Your task to perform on an android device: install app "WhatsApp Messenger" Image 0: 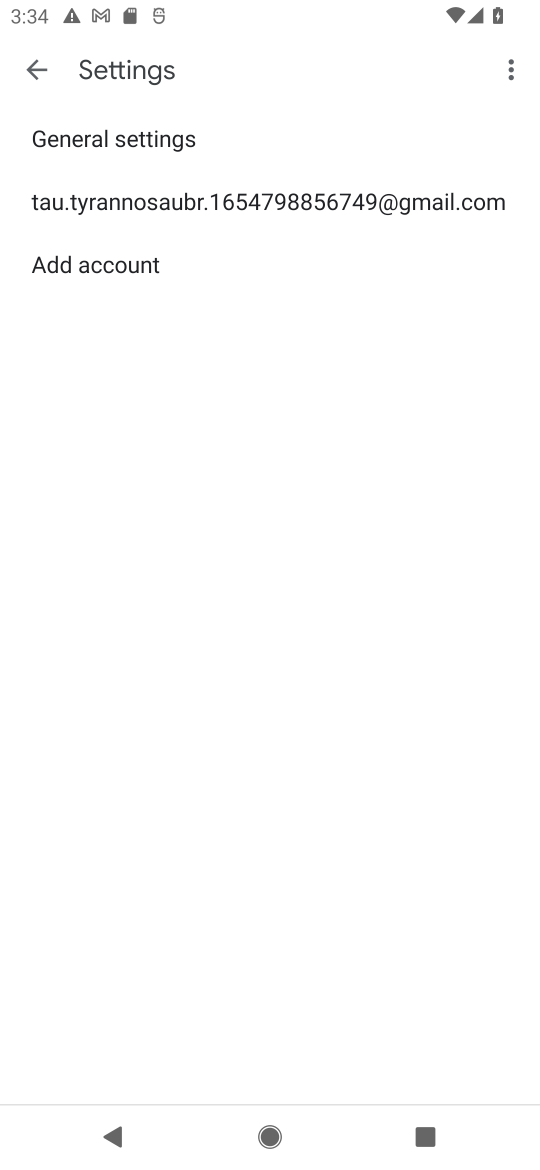
Step 0: press home button
Your task to perform on an android device: install app "WhatsApp Messenger" Image 1: 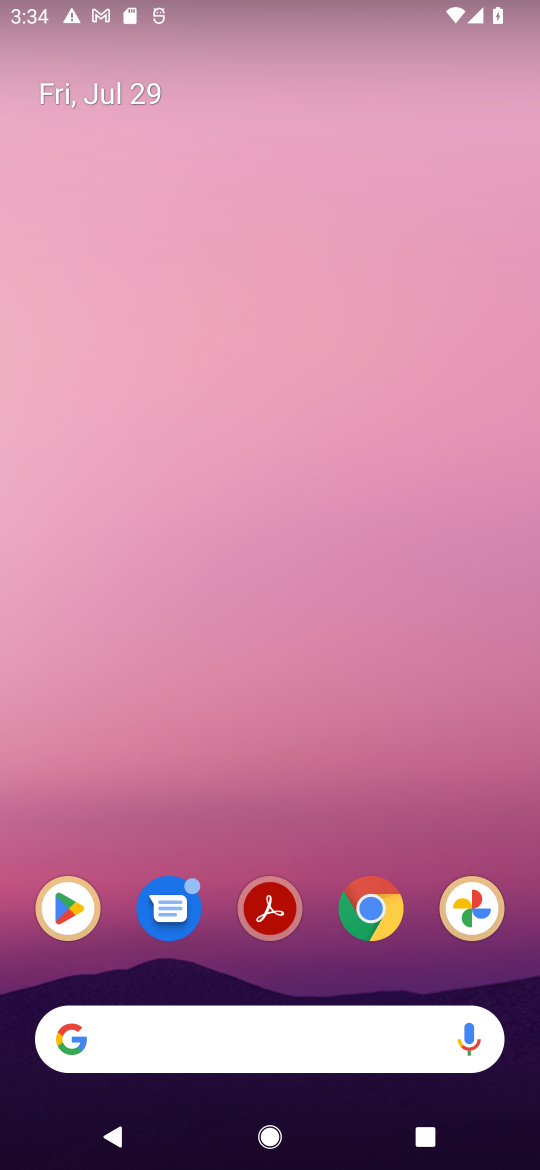
Step 1: click (53, 908)
Your task to perform on an android device: install app "WhatsApp Messenger" Image 2: 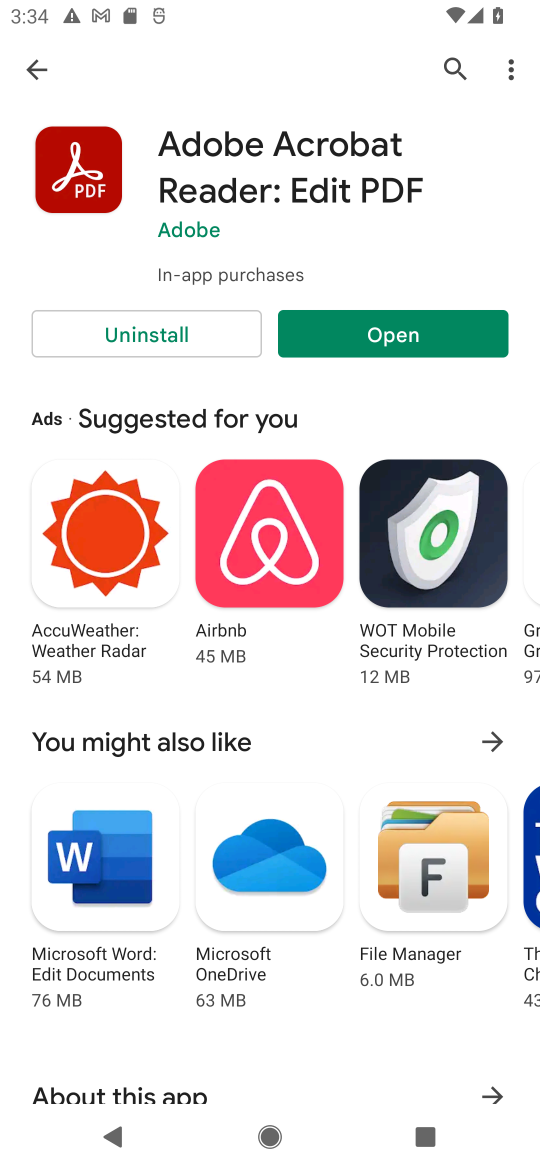
Step 2: click (455, 48)
Your task to perform on an android device: install app "WhatsApp Messenger" Image 3: 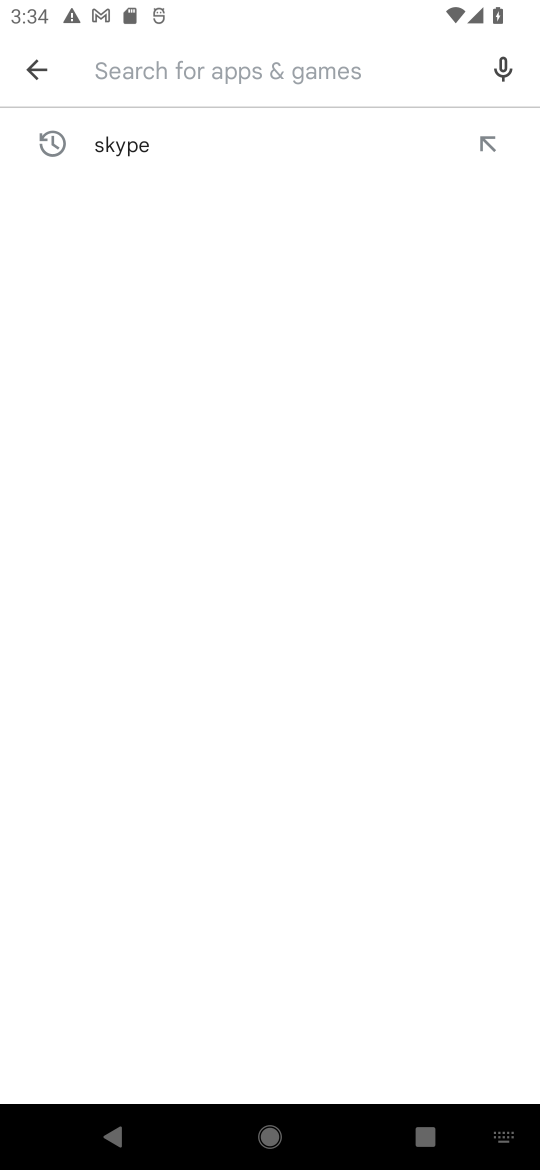
Step 3: type "whatsapp messenger"
Your task to perform on an android device: install app "WhatsApp Messenger" Image 4: 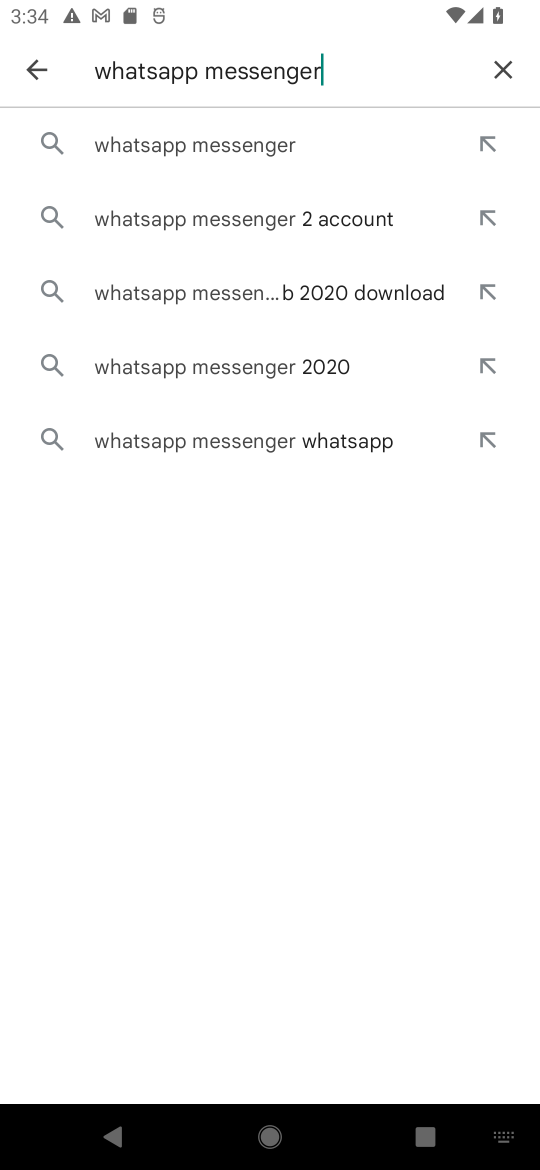
Step 4: click (112, 146)
Your task to perform on an android device: install app "WhatsApp Messenger" Image 5: 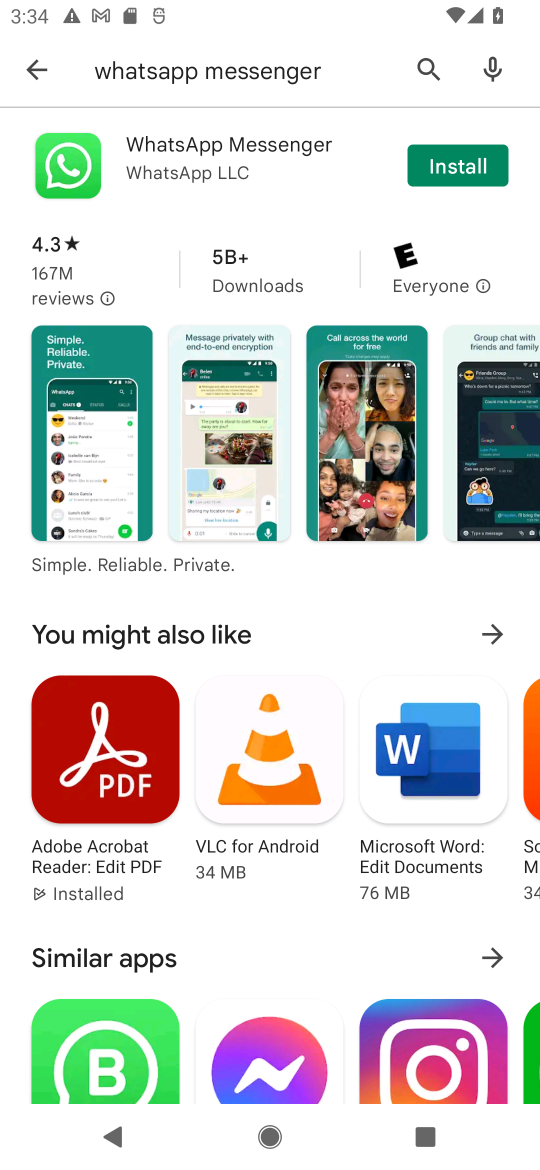
Step 5: click (478, 164)
Your task to perform on an android device: install app "WhatsApp Messenger" Image 6: 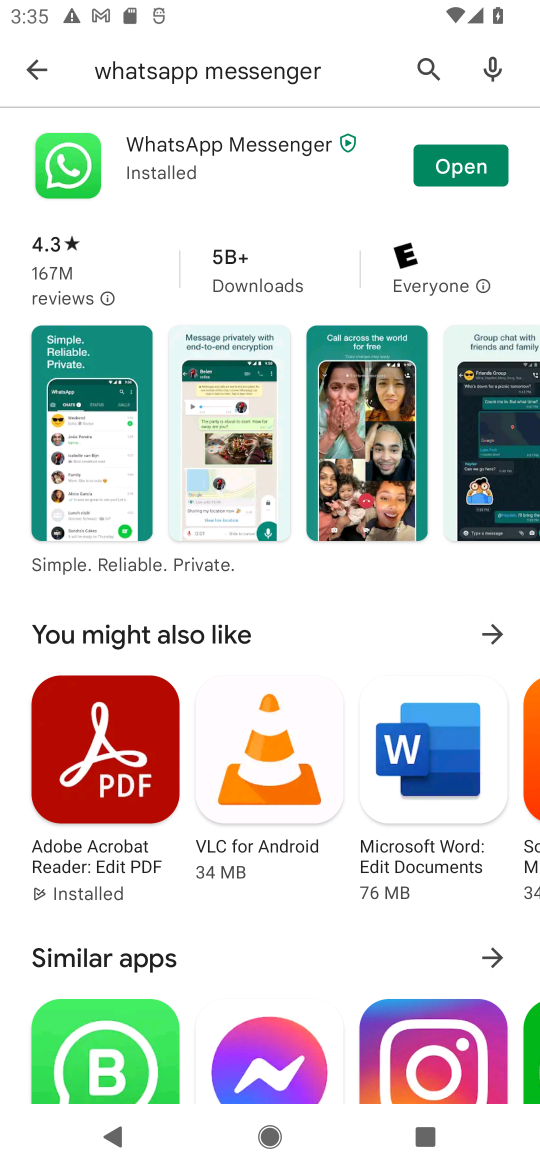
Step 6: task complete